Your task to perform on an android device: turn off translation in the chrome app Image 0: 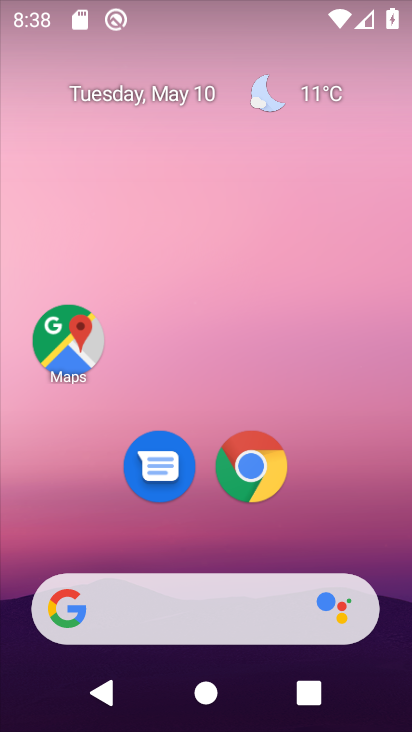
Step 0: click (239, 471)
Your task to perform on an android device: turn off translation in the chrome app Image 1: 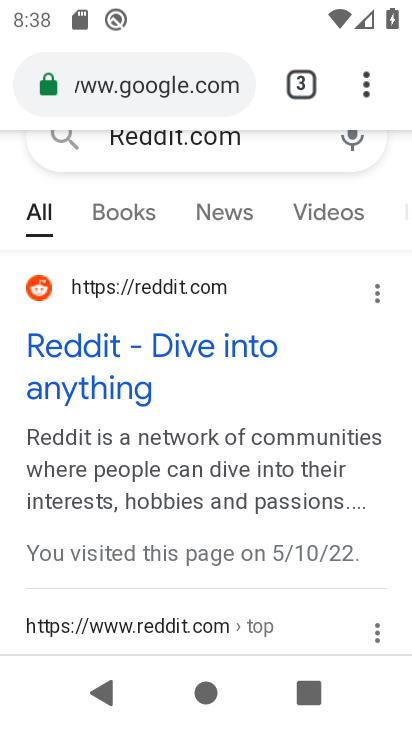
Step 1: click (364, 88)
Your task to perform on an android device: turn off translation in the chrome app Image 2: 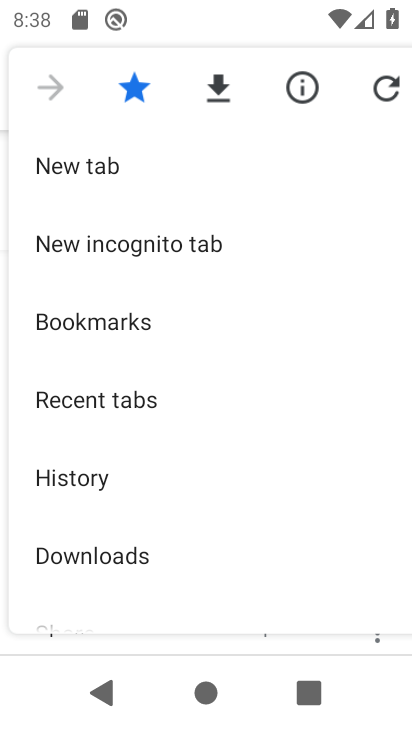
Step 2: drag from (90, 478) to (114, 162)
Your task to perform on an android device: turn off translation in the chrome app Image 3: 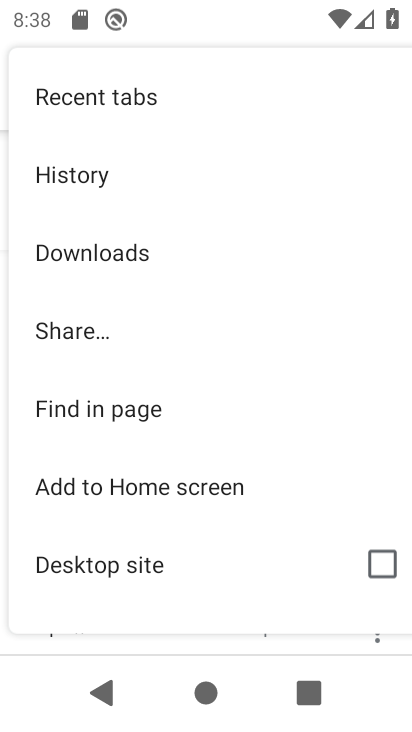
Step 3: drag from (96, 553) to (113, 207)
Your task to perform on an android device: turn off translation in the chrome app Image 4: 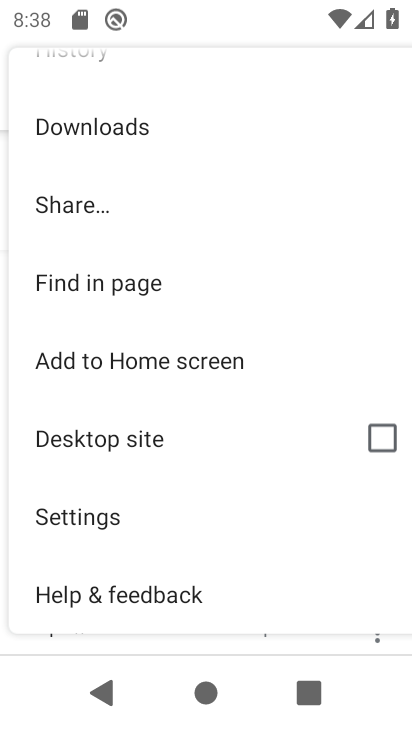
Step 4: click (97, 526)
Your task to perform on an android device: turn off translation in the chrome app Image 5: 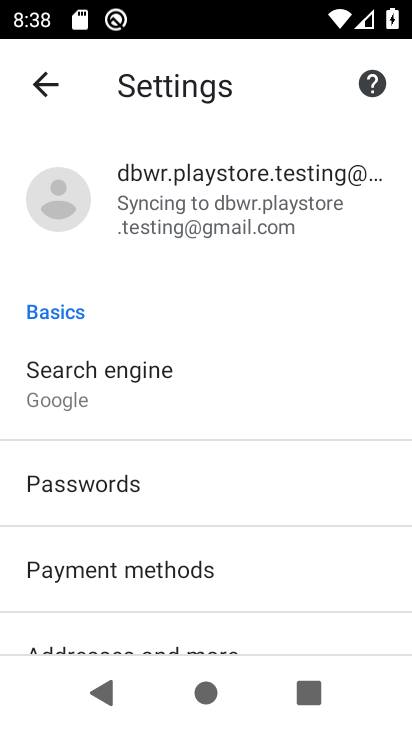
Step 5: click (357, 86)
Your task to perform on an android device: turn off translation in the chrome app Image 6: 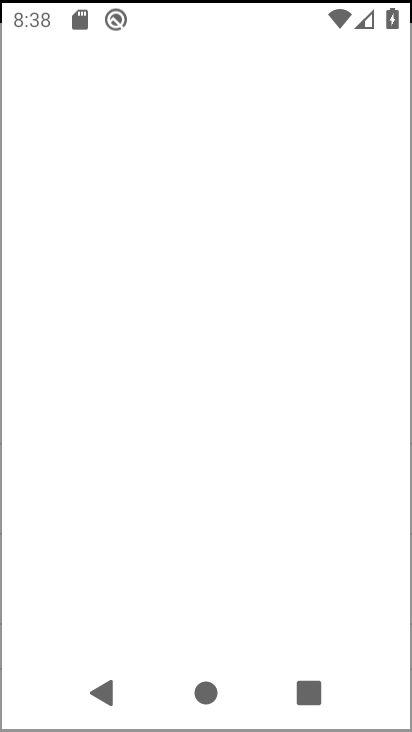
Step 6: drag from (158, 573) to (176, 161)
Your task to perform on an android device: turn off translation in the chrome app Image 7: 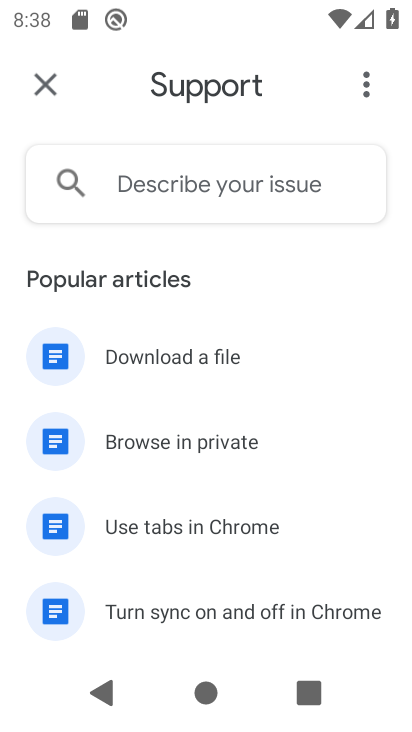
Step 7: click (49, 78)
Your task to perform on an android device: turn off translation in the chrome app Image 8: 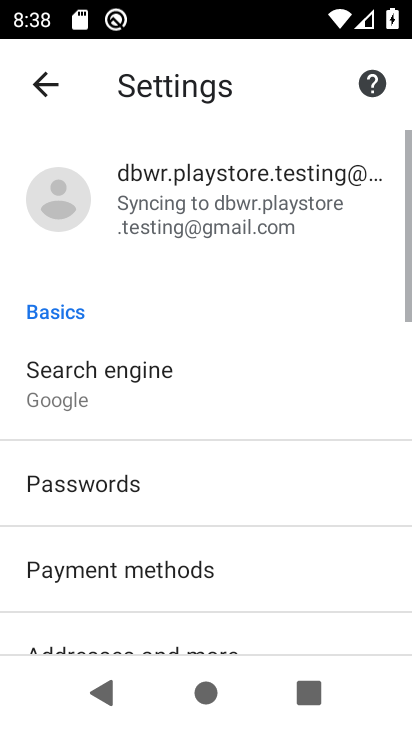
Step 8: drag from (173, 566) to (204, 43)
Your task to perform on an android device: turn off translation in the chrome app Image 9: 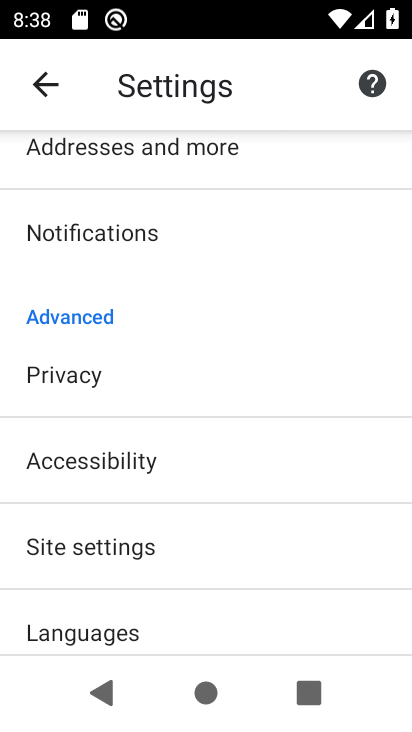
Step 9: click (128, 626)
Your task to perform on an android device: turn off translation in the chrome app Image 10: 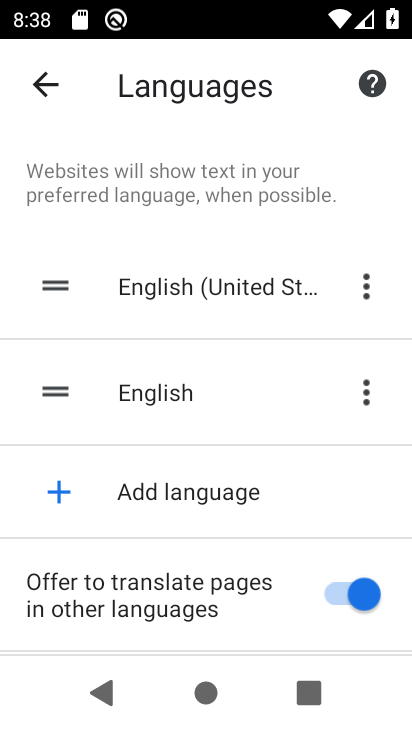
Step 10: click (324, 584)
Your task to perform on an android device: turn off translation in the chrome app Image 11: 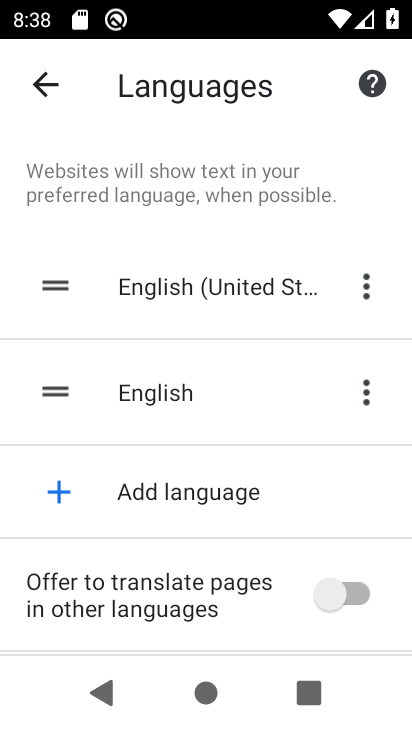
Step 11: task complete